Your task to perform on an android device: Open the map Image 0: 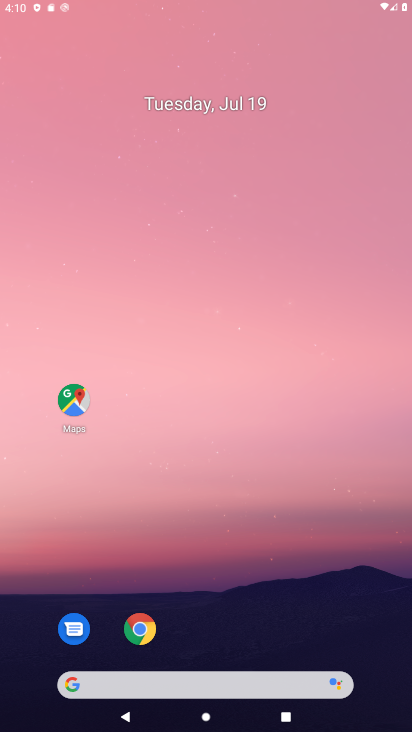
Step 0: press home button
Your task to perform on an android device: Open the map Image 1: 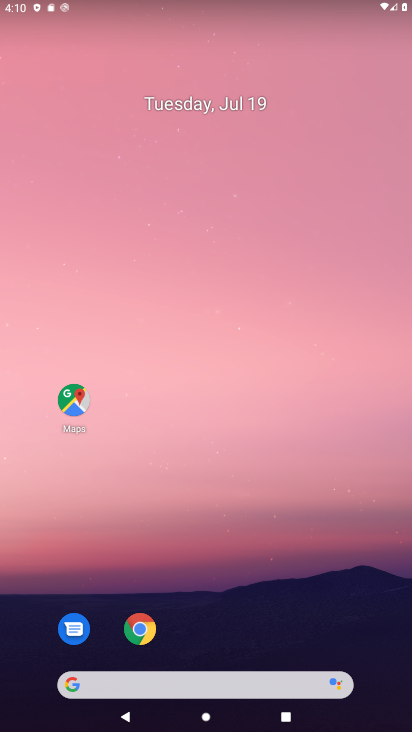
Step 1: click (71, 402)
Your task to perform on an android device: Open the map Image 2: 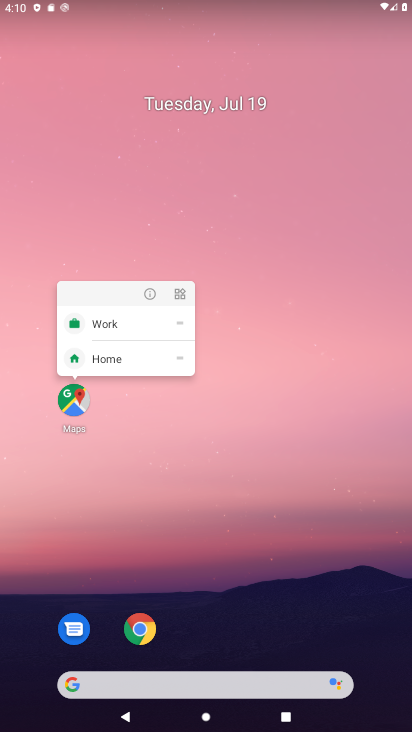
Step 2: click (72, 402)
Your task to perform on an android device: Open the map Image 3: 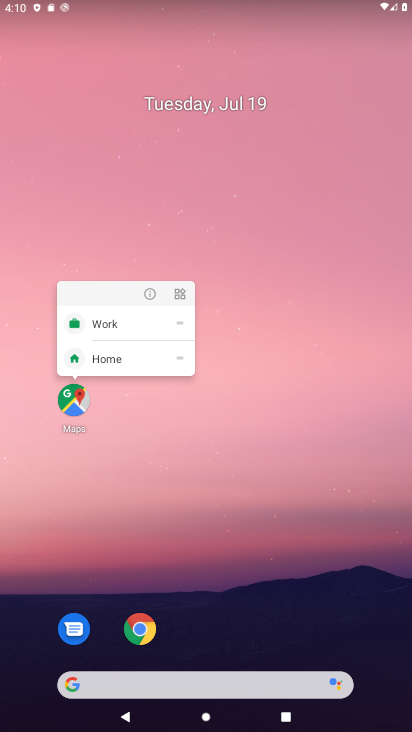
Step 3: click (72, 402)
Your task to perform on an android device: Open the map Image 4: 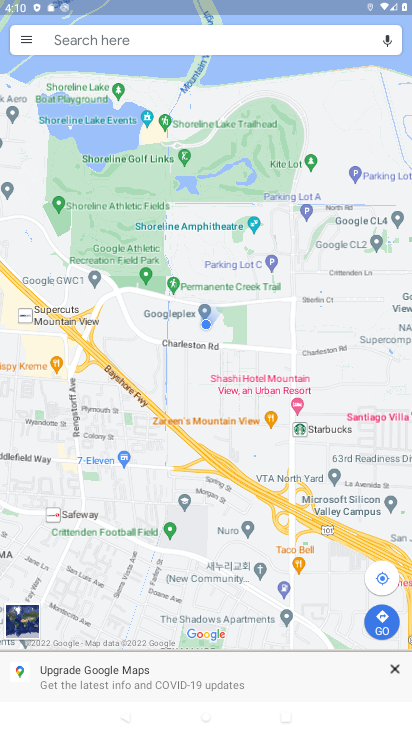
Step 4: task complete